Your task to perform on an android device: Search for seafood restaurants on Google Maps Image 0: 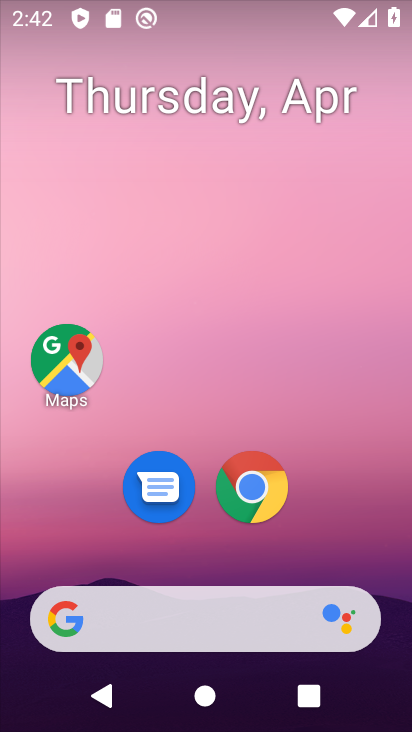
Step 0: drag from (288, 474) to (295, 225)
Your task to perform on an android device: Search for seafood restaurants on Google Maps Image 1: 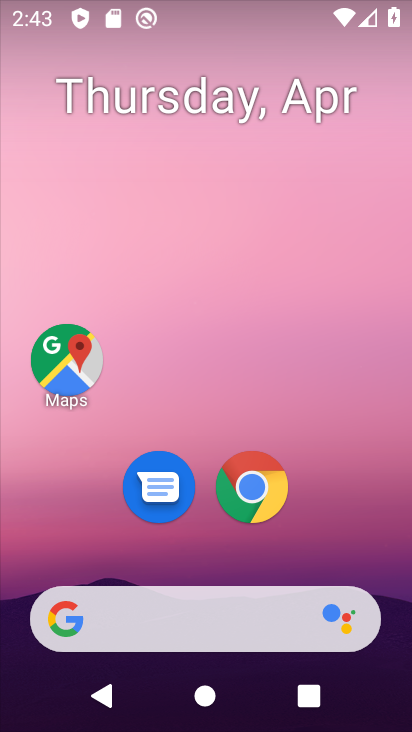
Step 1: drag from (203, 554) to (239, 127)
Your task to perform on an android device: Search for seafood restaurants on Google Maps Image 2: 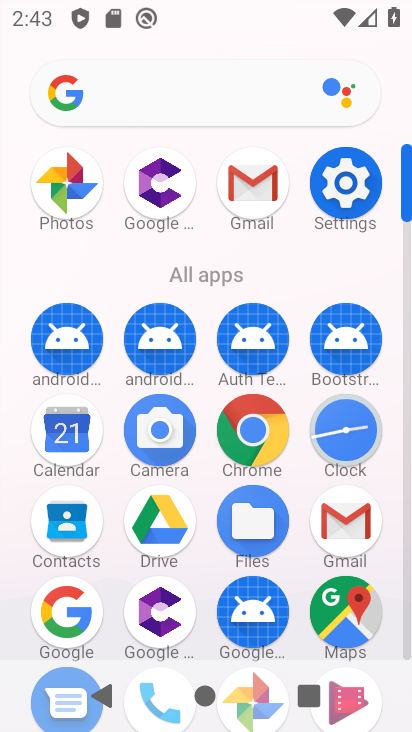
Step 2: drag from (330, 529) to (311, 299)
Your task to perform on an android device: Search for seafood restaurants on Google Maps Image 3: 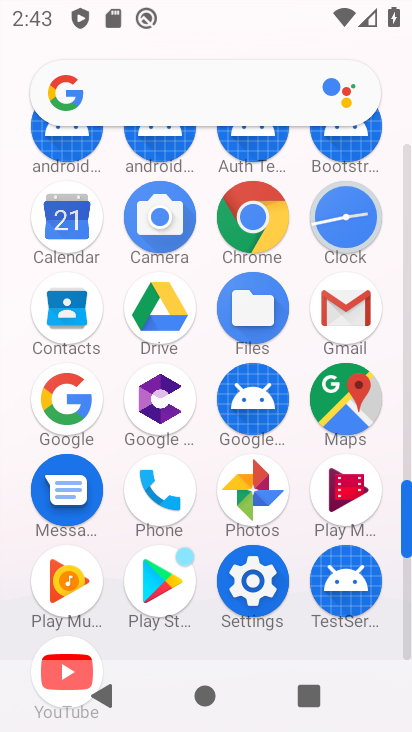
Step 3: click (250, 500)
Your task to perform on an android device: Search for seafood restaurants on Google Maps Image 4: 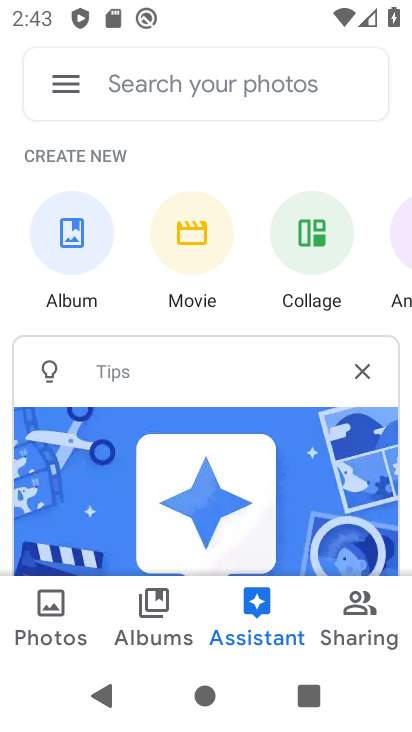
Step 4: press home button
Your task to perform on an android device: Search for seafood restaurants on Google Maps Image 5: 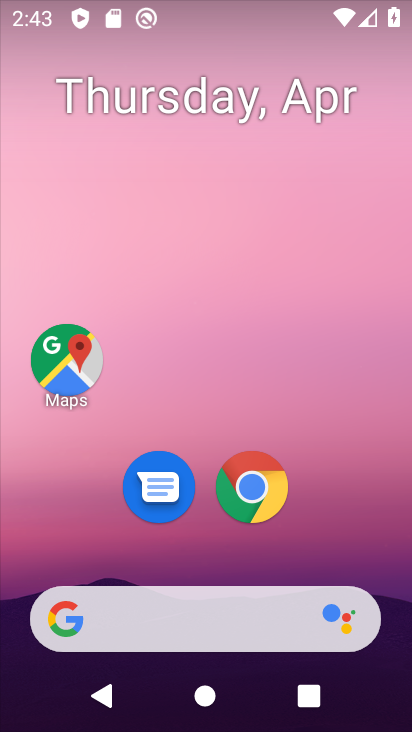
Step 5: drag from (197, 613) to (225, 369)
Your task to perform on an android device: Search for seafood restaurants on Google Maps Image 6: 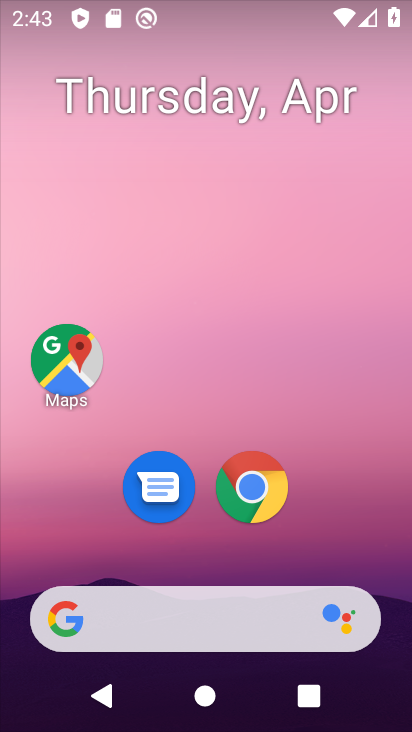
Step 6: drag from (231, 579) to (242, 295)
Your task to perform on an android device: Search for seafood restaurants on Google Maps Image 7: 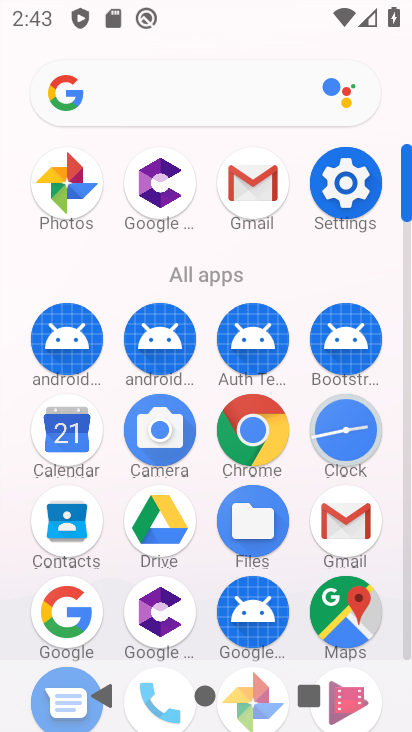
Step 7: click (350, 613)
Your task to perform on an android device: Search for seafood restaurants on Google Maps Image 8: 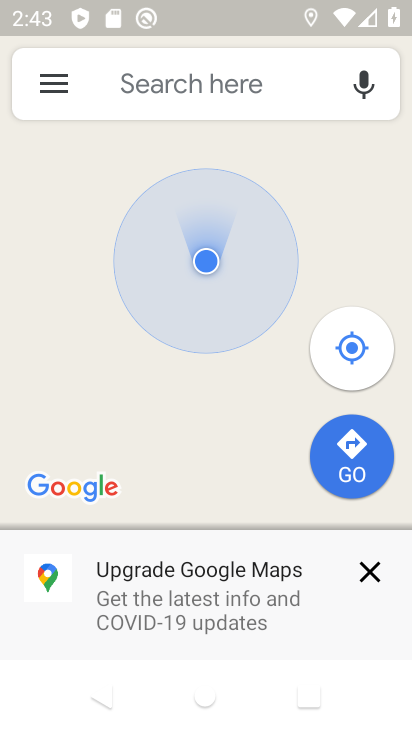
Step 8: click (153, 95)
Your task to perform on an android device: Search for seafood restaurants on Google Maps Image 9: 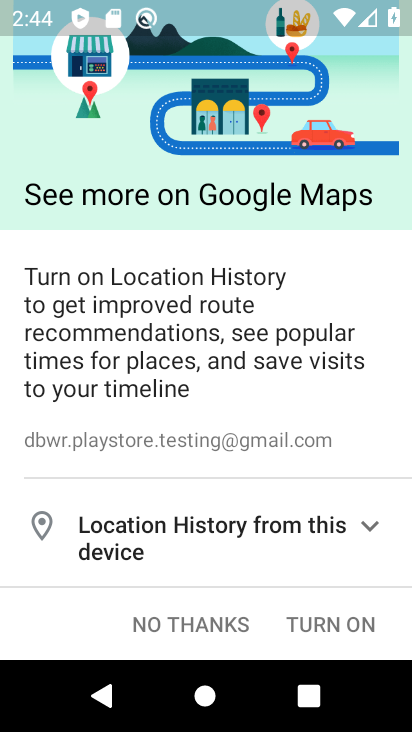
Step 9: click (199, 632)
Your task to perform on an android device: Search for seafood restaurants on Google Maps Image 10: 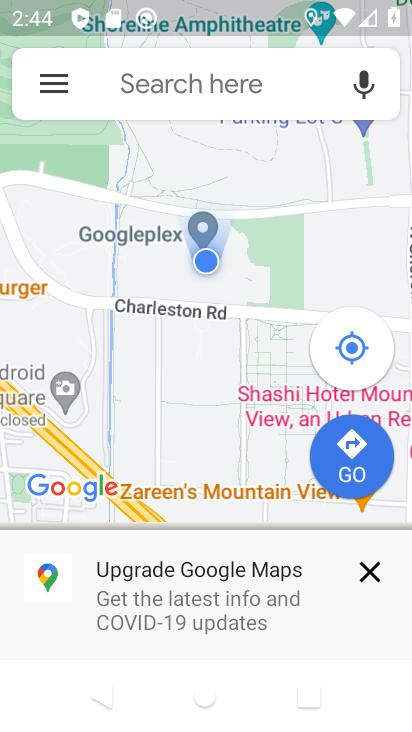
Step 10: click (191, 68)
Your task to perform on an android device: Search for seafood restaurants on Google Maps Image 11: 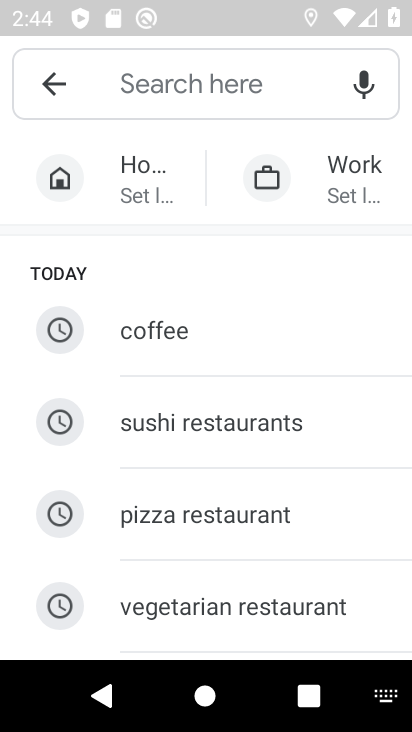
Step 11: drag from (214, 579) to (252, 368)
Your task to perform on an android device: Search for seafood restaurants on Google Maps Image 12: 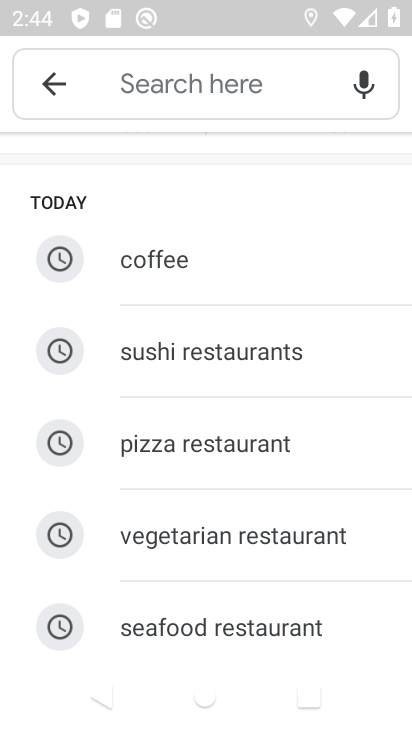
Step 12: click (243, 619)
Your task to perform on an android device: Search for seafood restaurants on Google Maps Image 13: 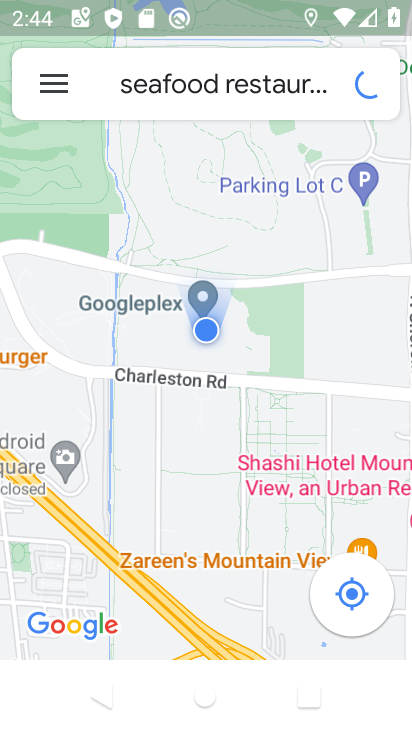
Step 13: task complete